Your task to perform on an android device: What is the news today? Image 0: 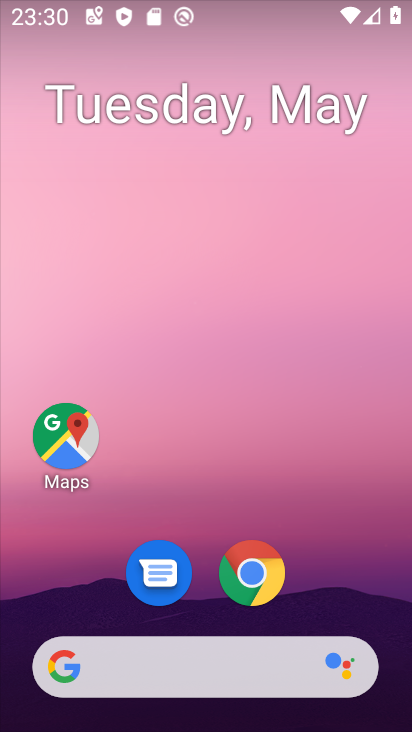
Step 0: click (268, 556)
Your task to perform on an android device: What is the news today? Image 1: 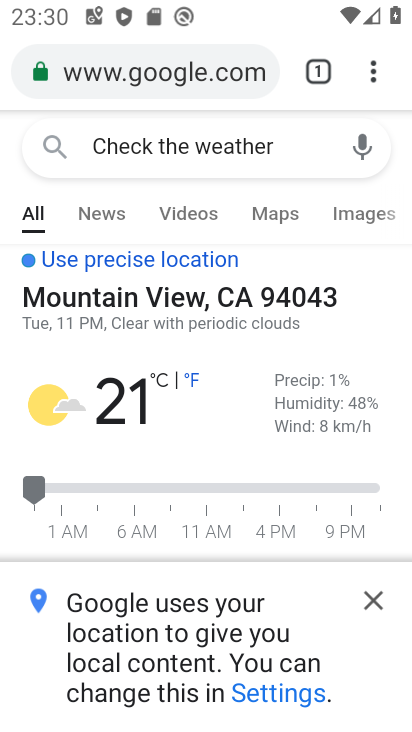
Step 1: click (353, 61)
Your task to perform on an android device: What is the news today? Image 2: 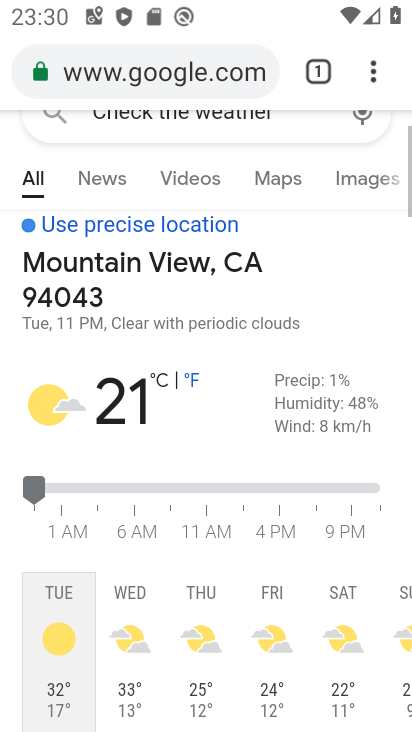
Step 2: click (368, 71)
Your task to perform on an android device: What is the news today? Image 3: 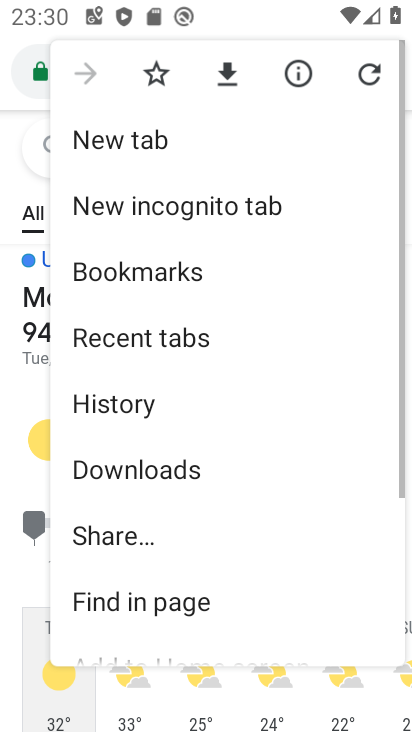
Step 3: click (139, 131)
Your task to perform on an android device: What is the news today? Image 4: 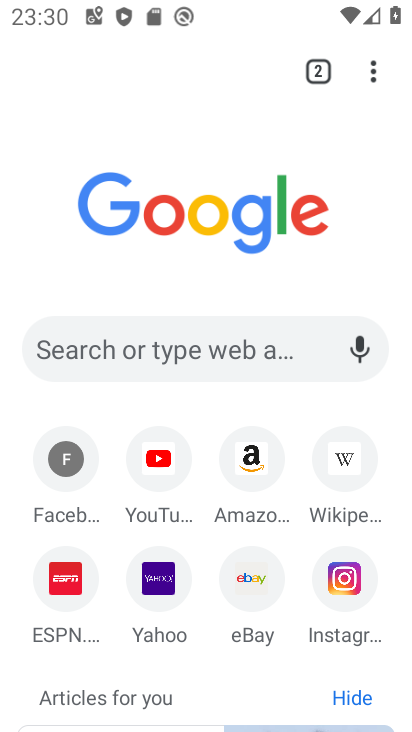
Step 4: click (228, 354)
Your task to perform on an android device: What is the news today? Image 5: 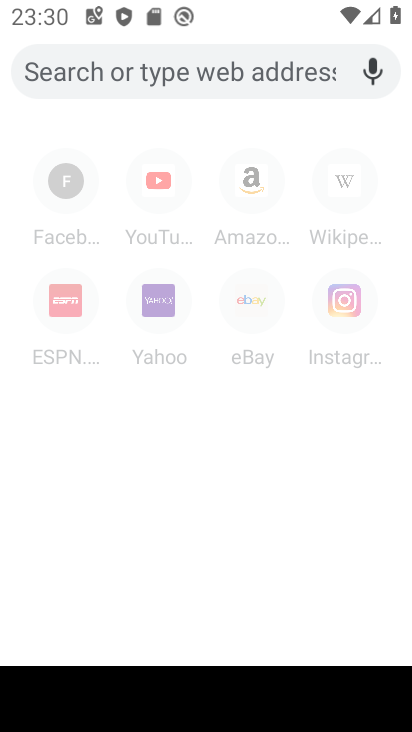
Step 5: type "What is the news today?"
Your task to perform on an android device: What is the news today? Image 6: 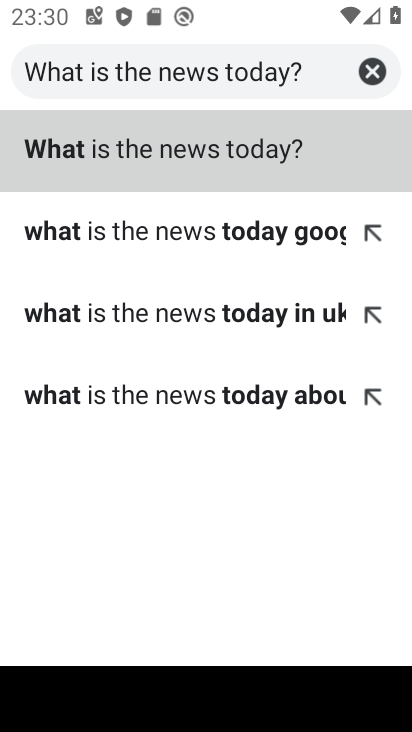
Step 6: click (238, 141)
Your task to perform on an android device: What is the news today? Image 7: 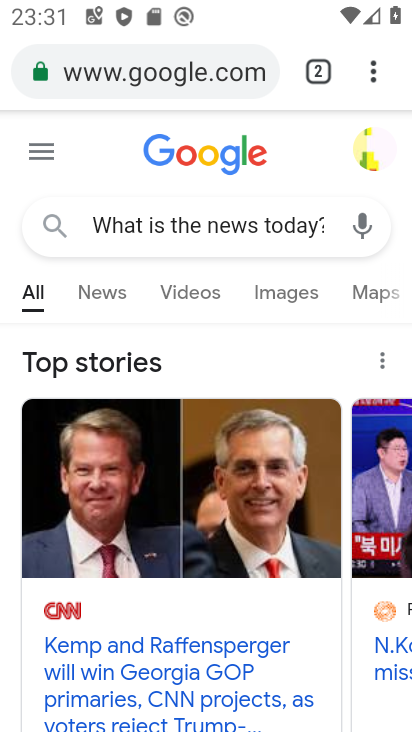
Step 7: task complete